Your task to perform on an android device: Play the new Bruno Mars video on YouTube Image 0: 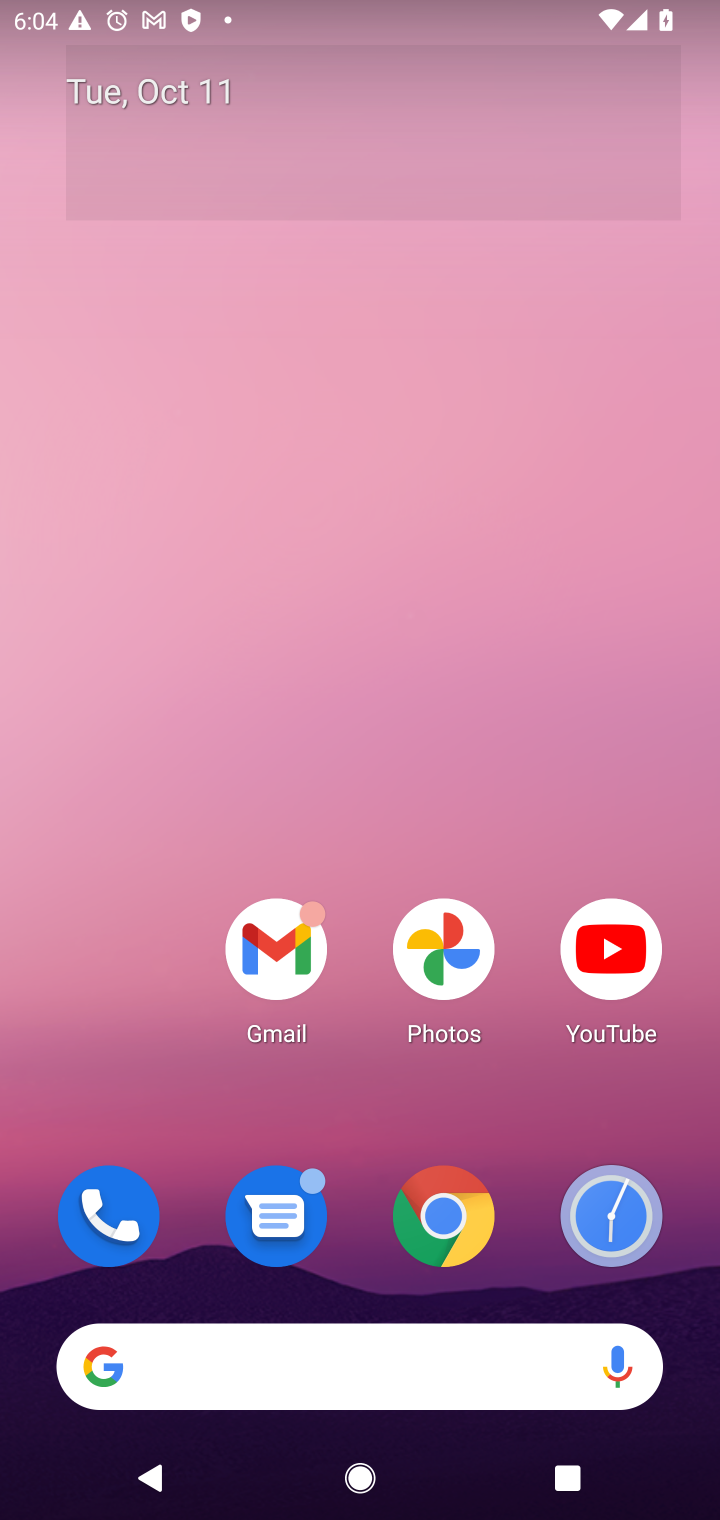
Step 0: click (613, 972)
Your task to perform on an android device: Play the new Bruno Mars video on YouTube Image 1: 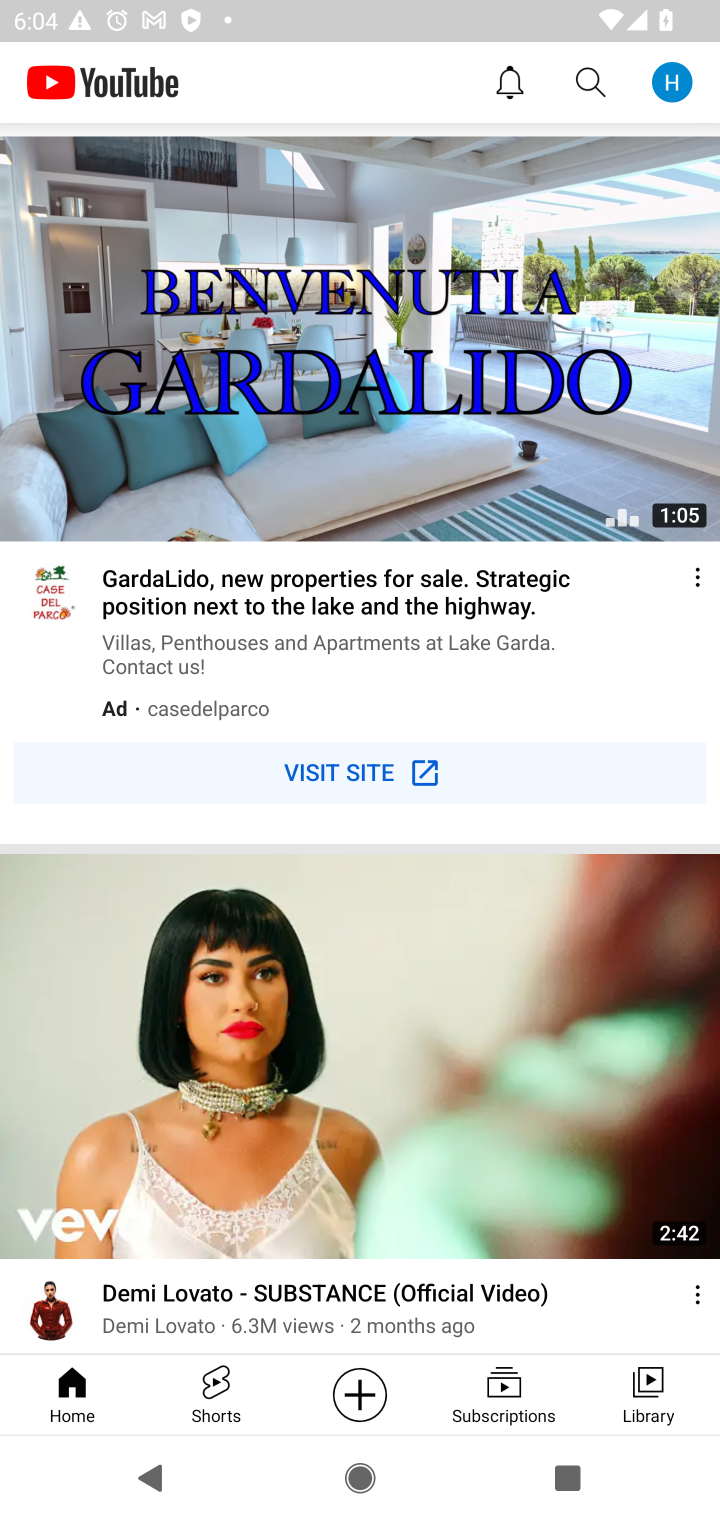
Step 1: click (593, 84)
Your task to perform on an android device: Play the new Bruno Mars video on YouTube Image 2: 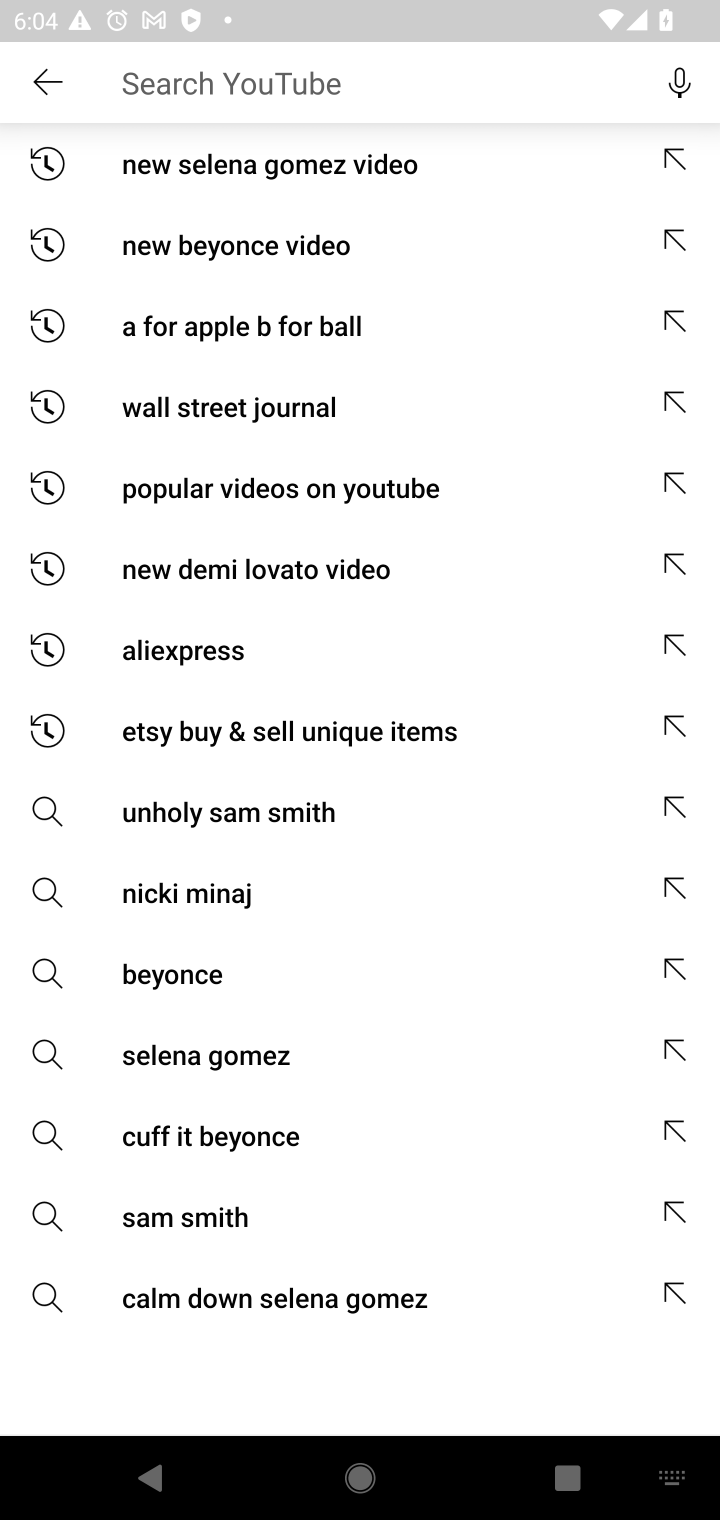
Step 2: type "bruno mars"
Your task to perform on an android device: Play the new Bruno Mars video on YouTube Image 3: 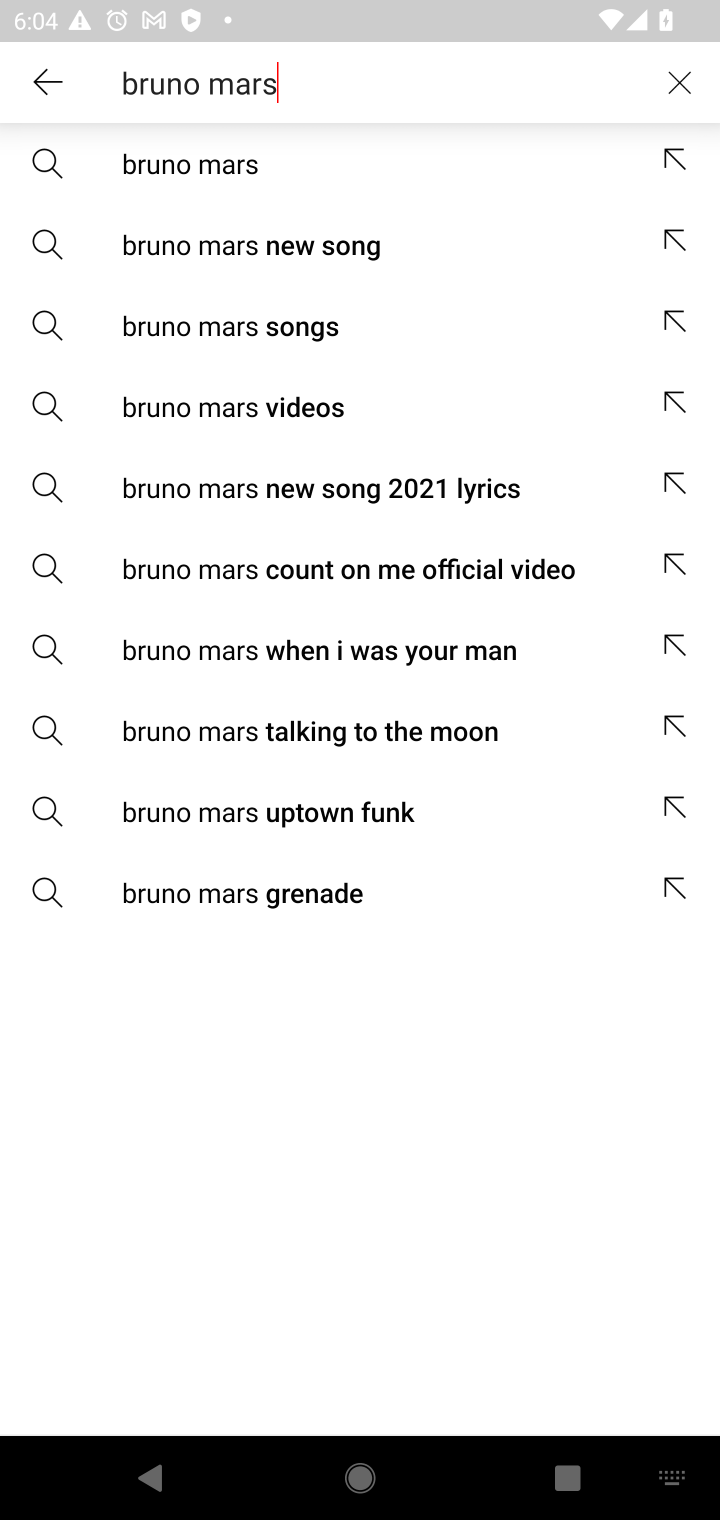
Step 3: press enter
Your task to perform on an android device: Play the new Bruno Mars video on YouTube Image 4: 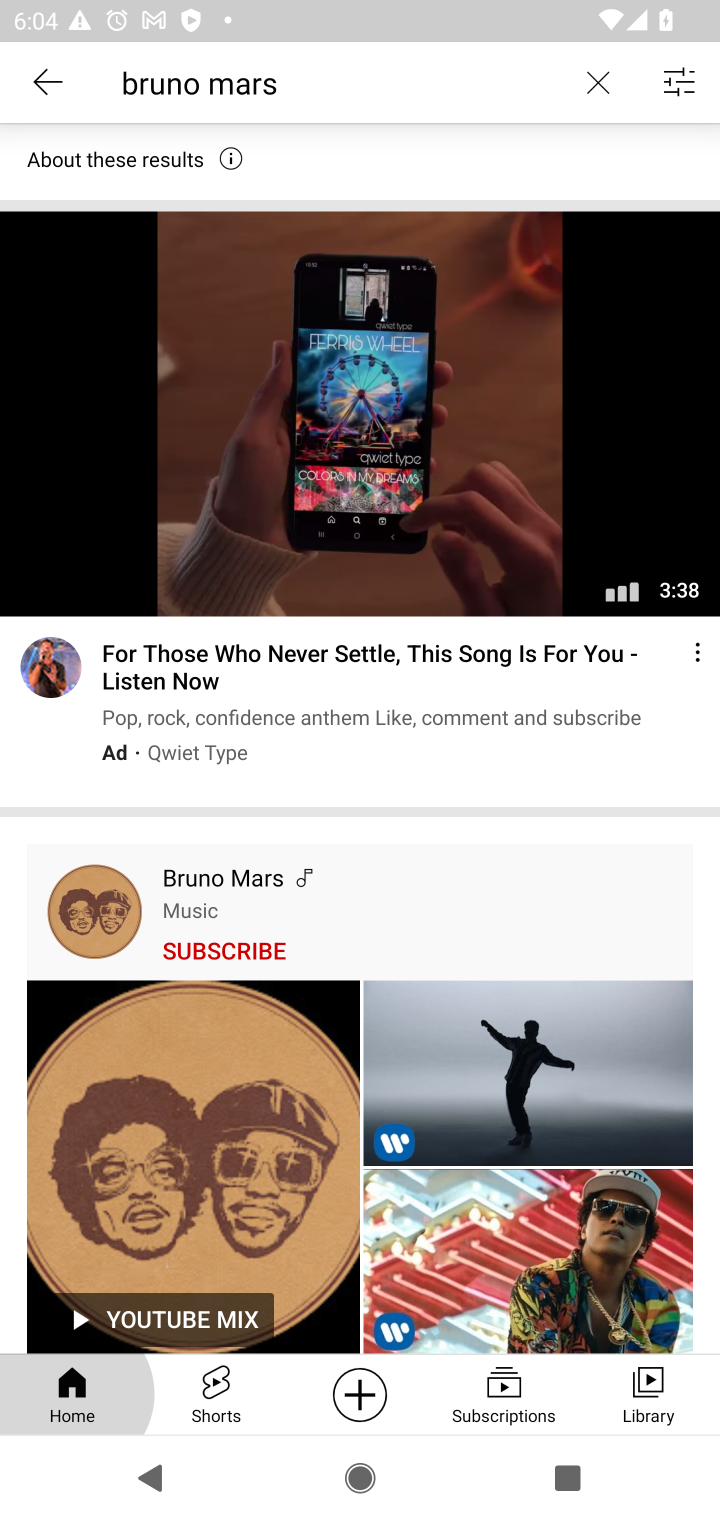
Step 4: click (92, 903)
Your task to perform on an android device: Play the new Bruno Mars video on YouTube Image 5: 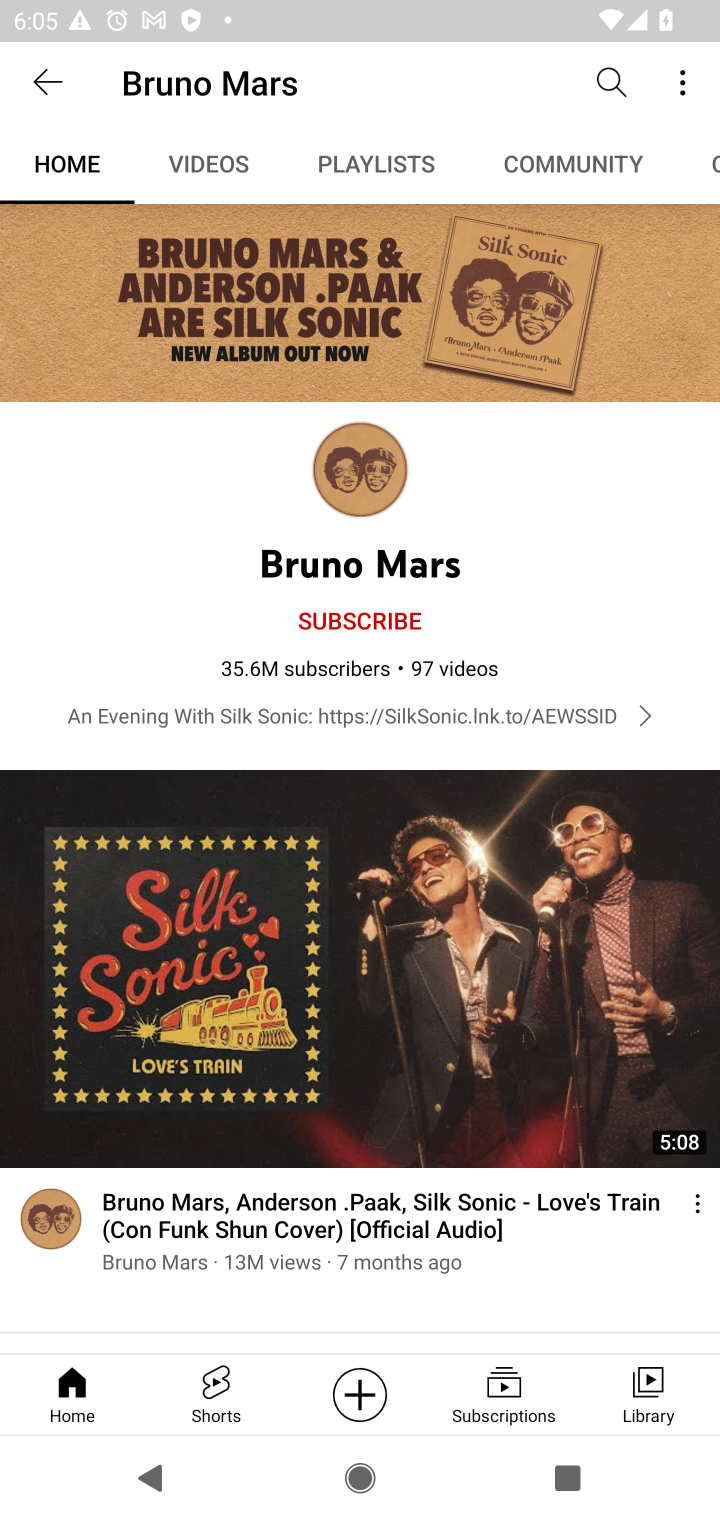
Step 5: click (178, 189)
Your task to perform on an android device: Play the new Bruno Mars video on YouTube Image 6: 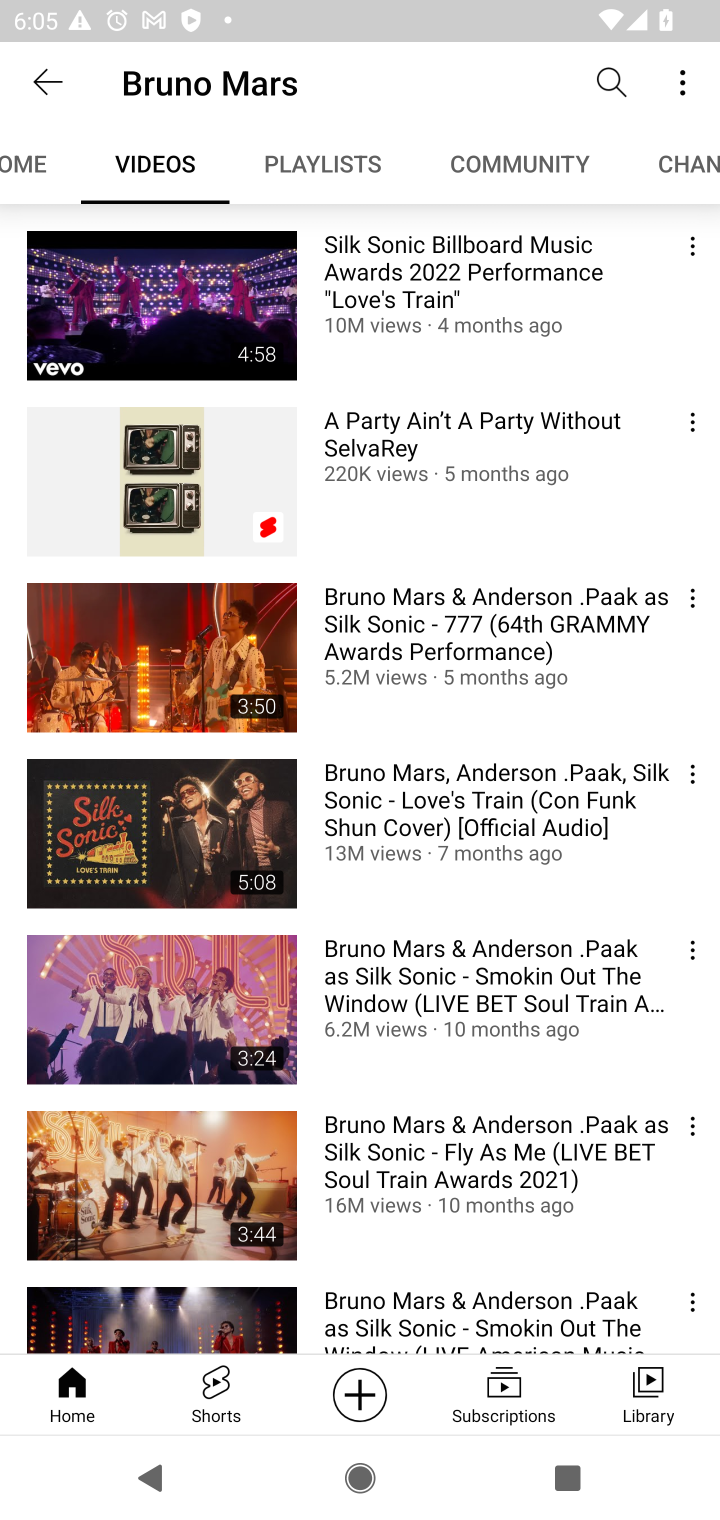
Step 6: click (182, 317)
Your task to perform on an android device: Play the new Bruno Mars video on YouTube Image 7: 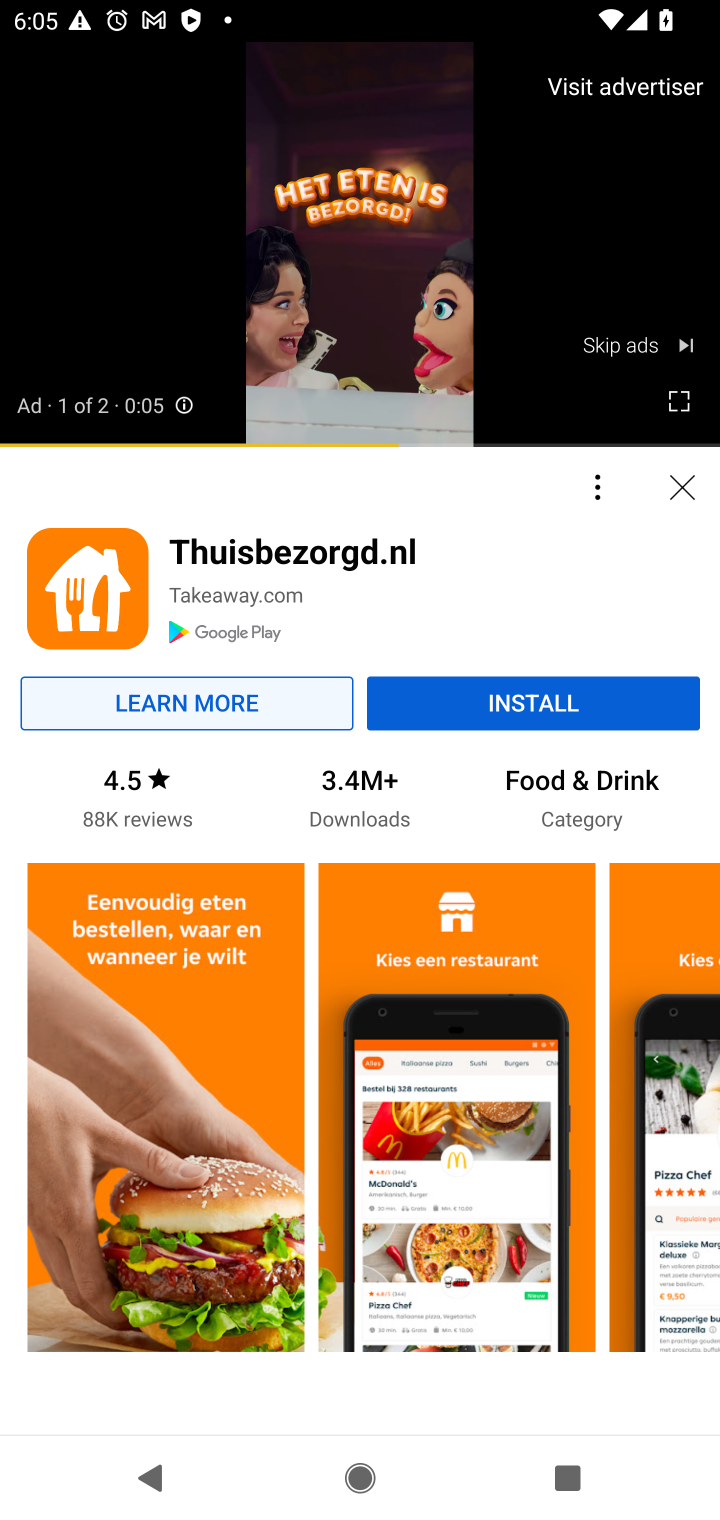
Step 7: task complete